Your task to perform on an android device: change notifications settings Image 0: 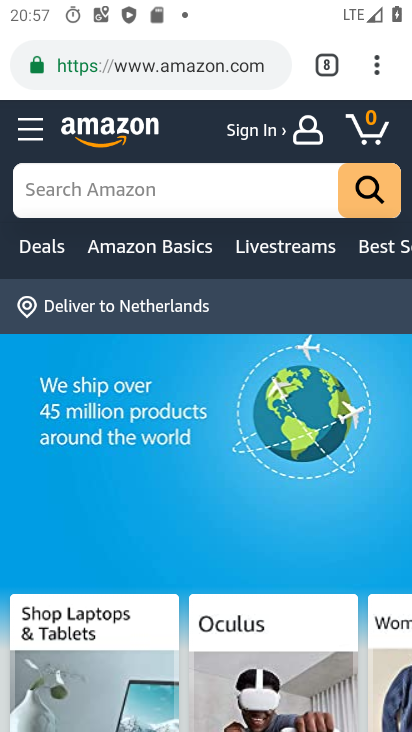
Step 0: press home button
Your task to perform on an android device: change notifications settings Image 1: 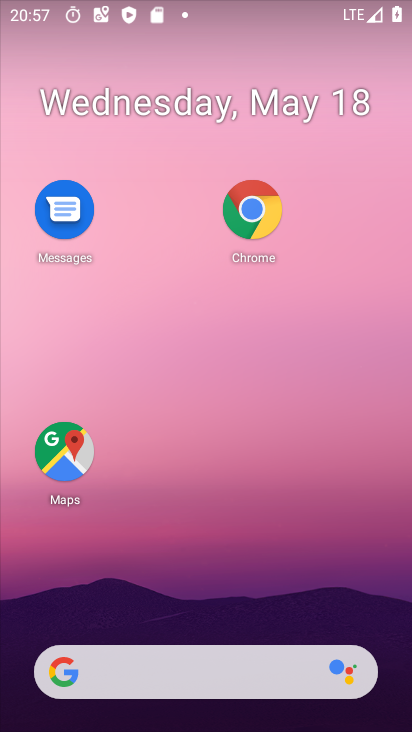
Step 1: drag from (175, 611) to (166, 16)
Your task to perform on an android device: change notifications settings Image 2: 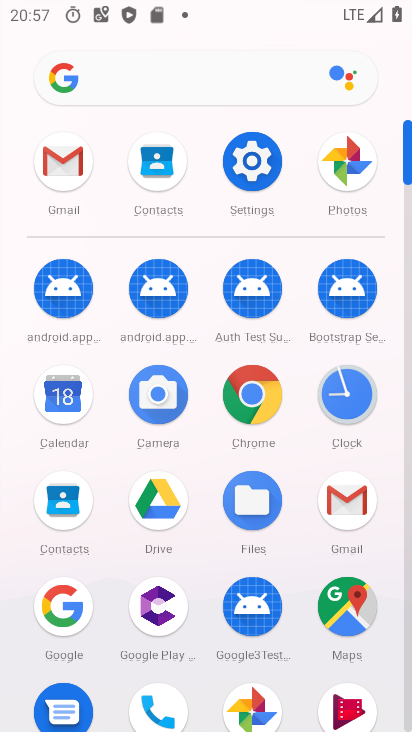
Step 2: click (261, 144)
Your task to perform on an android device: change notifications settings Image 3: 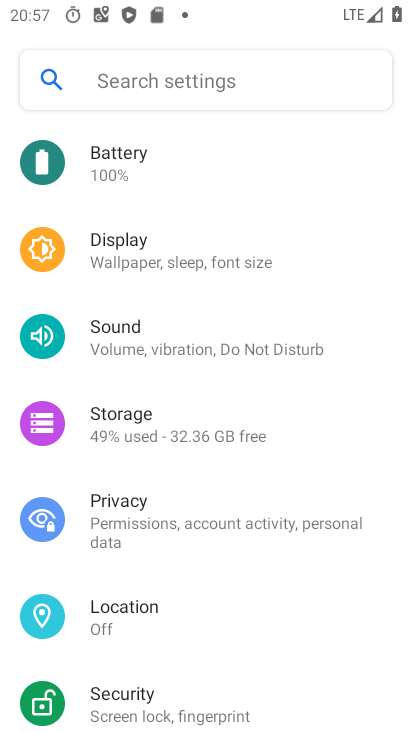
Step 3: drag from (169, 204) to (169, 443)
Your task to perform on an android device: change notifications settings Image 4: 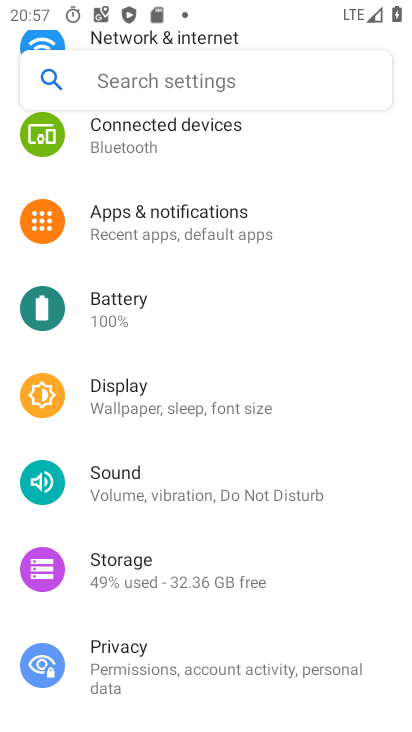
Step 4: click (146, 215)
Your task to perform on an android device: change notifications settings Image 5: 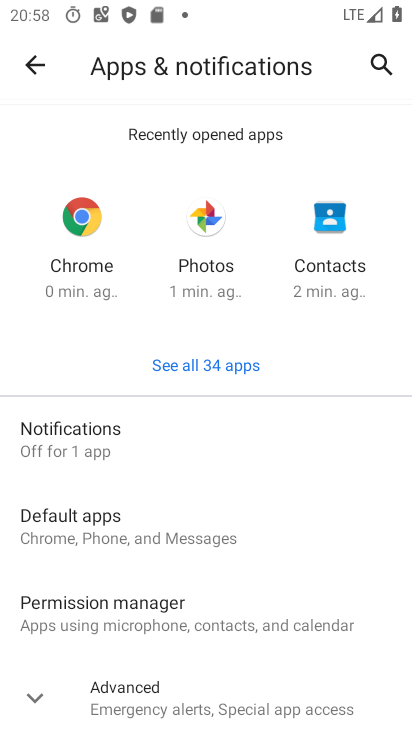
Step 5: click (75, 425)
Your task to perform on an android device: change notifications settings Image 6: 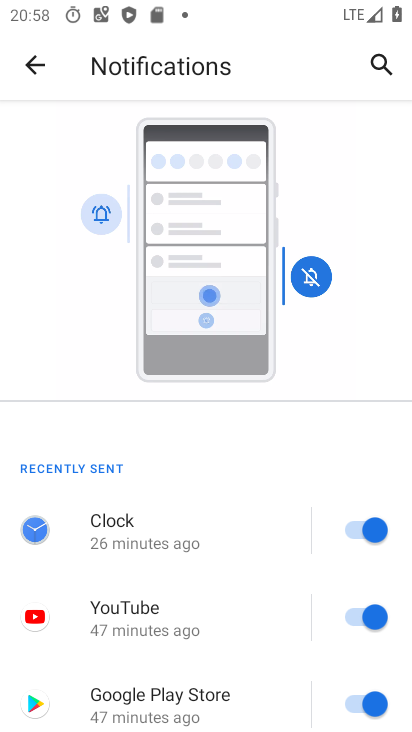
Step 6: drag from (149, 668) to (113, 212)
Your task to perform on an android device: change notifications settings Image 7: 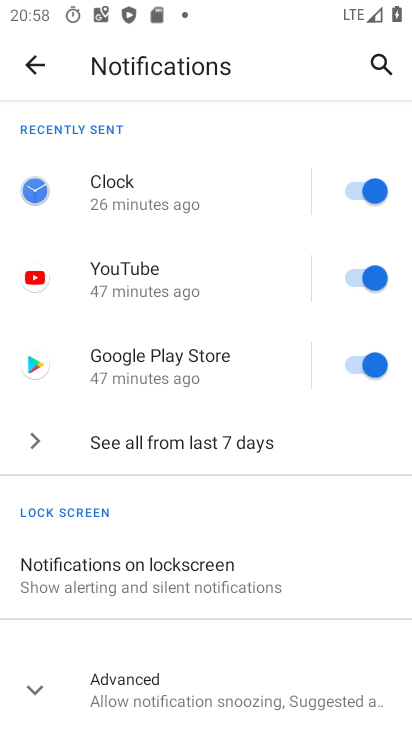
Step 7: click (236, 693)
Your task to perform on an android device: change notifications settings Image 8: 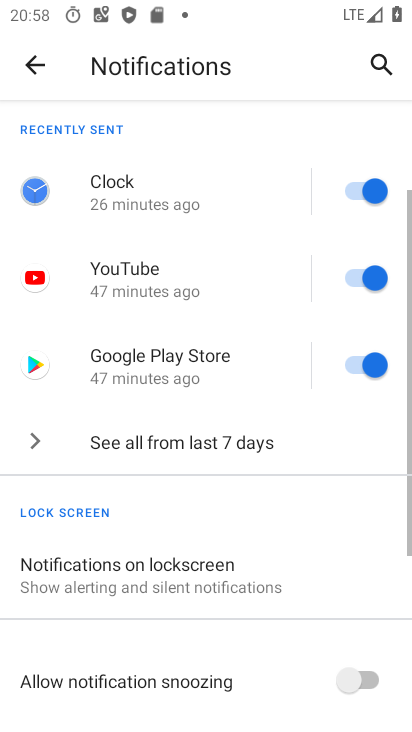
Step 8: drag from (236, 693) to (224, 191)
Your task to perform on an android device: change notifications settings Image 9: 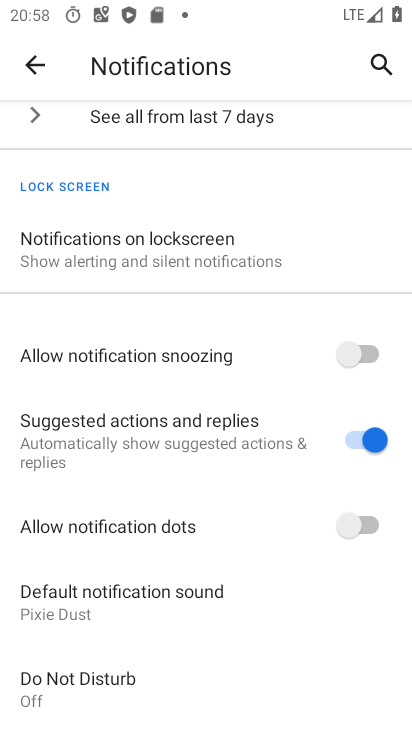
Step 9: click (368, 347)
Your task to perform on an android device: change notifications settings Image 10: 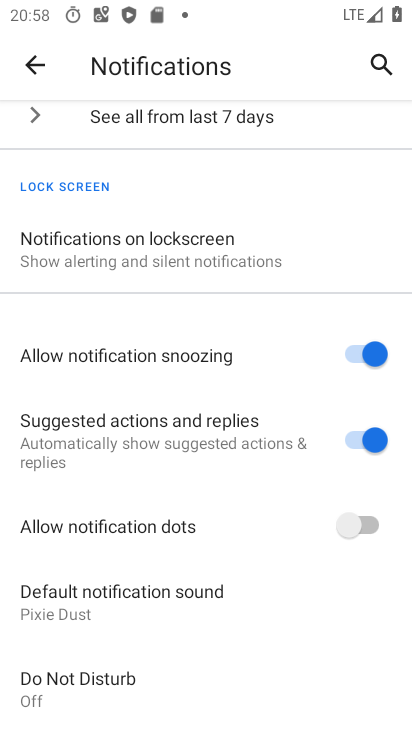
Step 10: click (360, 448)
Your task to perform on an android device: change notifications settings Image 11: 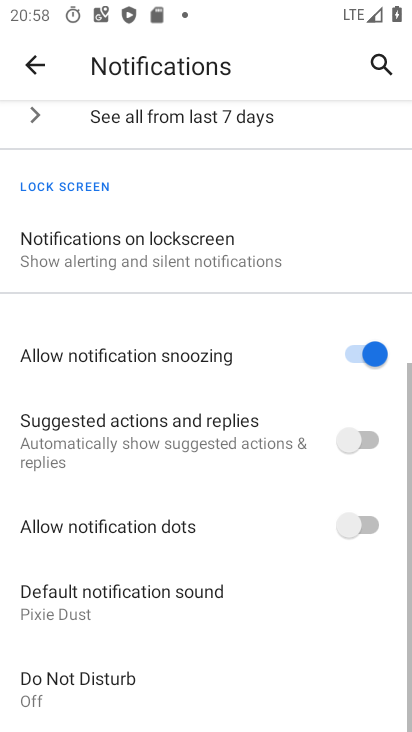
Step 11: click (372, 519)
Your task to perform on an android device: change notifications settings Image 12: 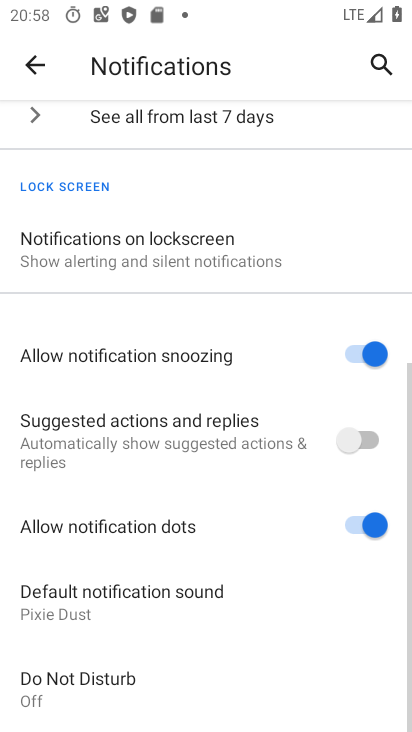
Step 12: task complete